Your task to perform on an android device: Go to Reddit.com Image 0: 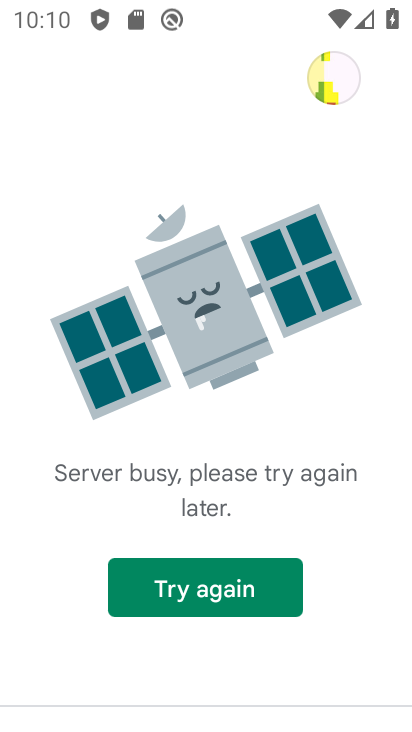
Step 0: press home button
Your task to perform on an android device: Go to Reddit.com Image 1: 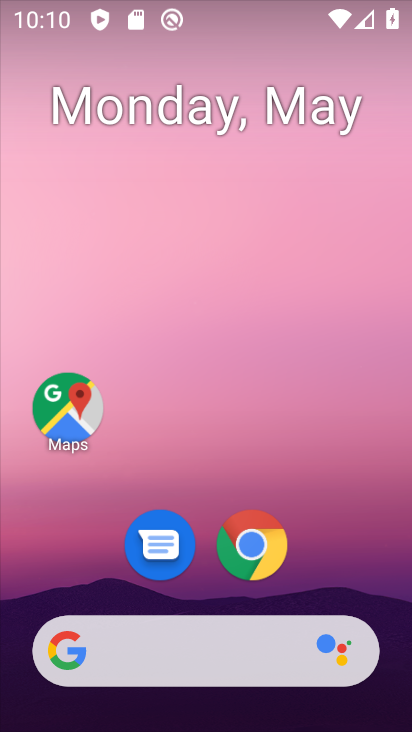
Step 1: click (258, 555)
Your task to perform on an android device: Go to Reddit.com Image 2: 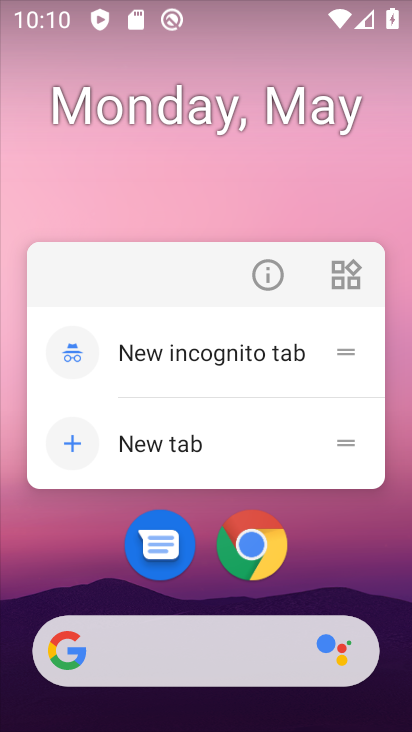
Step 2: click (264, 541)
Your task to perform on an android device: Go to Reddit.com Image 3: 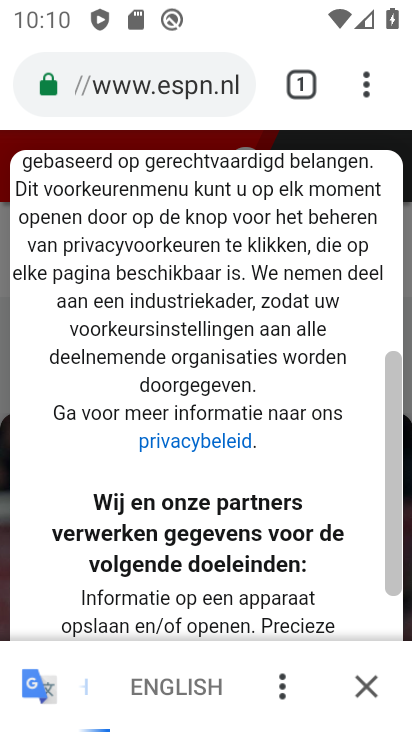
Step 3: click (286, 93)
Your task to perform on an android device: Go to Reddit.com Image 4: 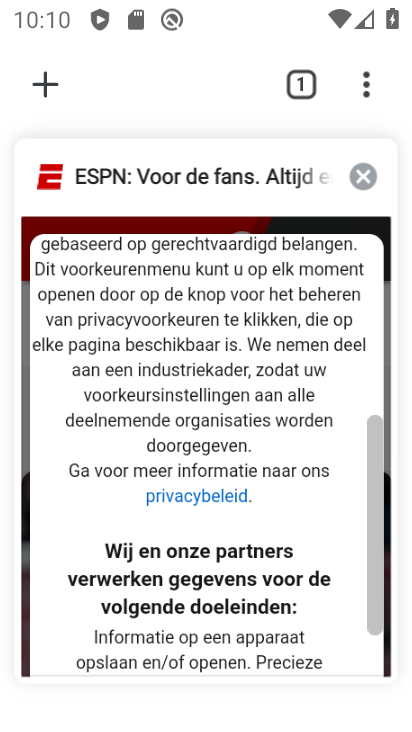
Step 4: click (39, 83)
Your task to perform on an android device: Go to Reddit.com Image 5: 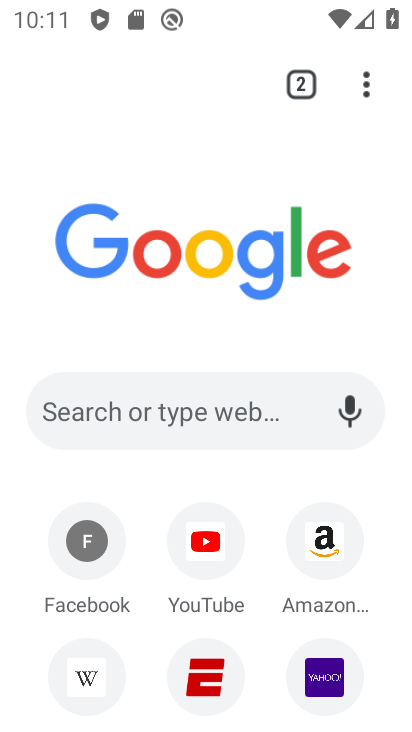
Step 5: click (130, 411)
Your task to perform on an android device: Go to Reddit.com Image 6: 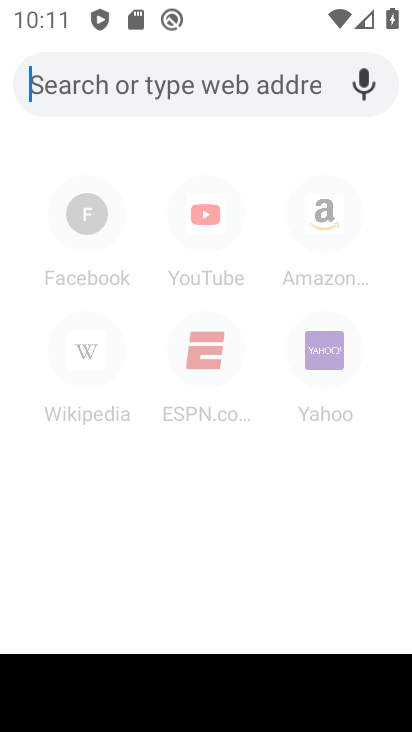
Step 6: type "reddit"
Your task to perform on an android device: Go to Reddit.com Image 7: 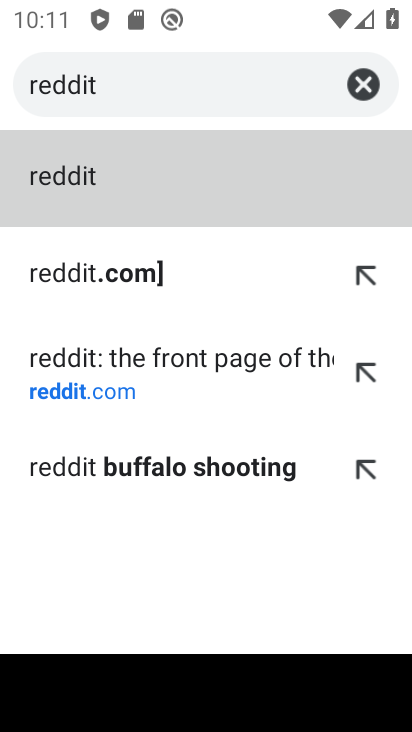
Step 7: click (104, 369)
Your task to perform on an android device: Go to Reddit.com Image 8: 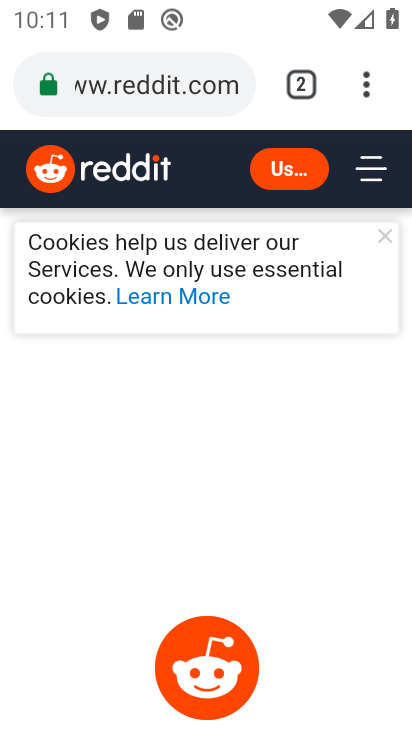
Step 8: task complete